Your task to perform on an android device: manage bookmarks in the chrome app Image 0: 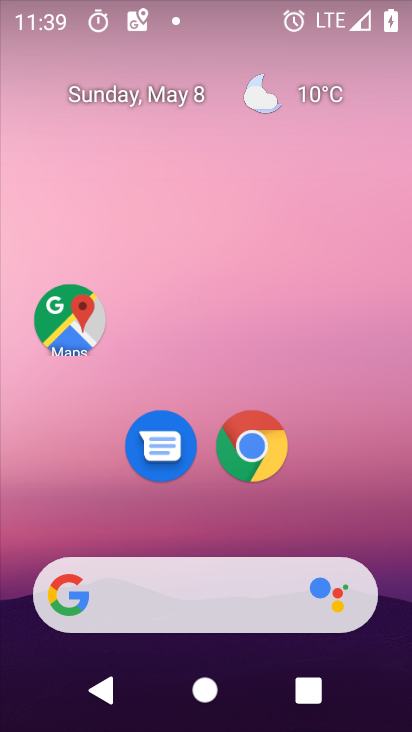
Step 0: click (254, 453)
Your task to perform on an android device: manage bookmarks in the chrome app Image 1: 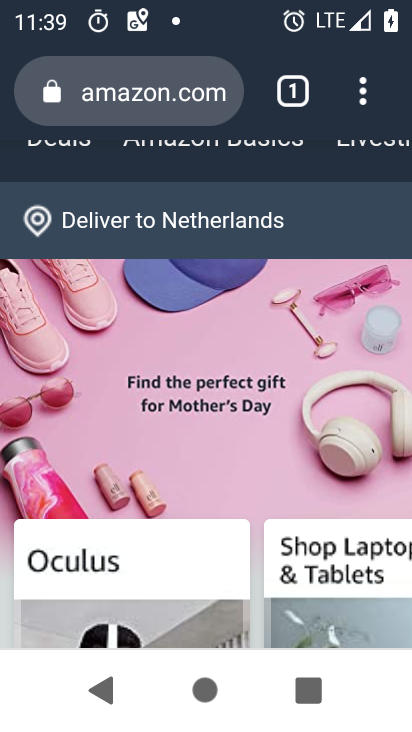
Step 1: drag from (365, 96) to (128, 337)
Your task to perform on an android device: manage bookmarks in the chrome app Image 2: 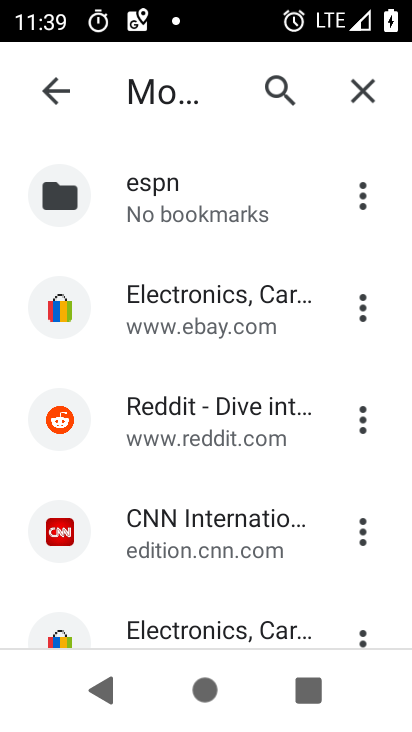
Step 2: click (364, 422)
Your task to perform on an android device: manage bookmarks in the chrome app Image 3: 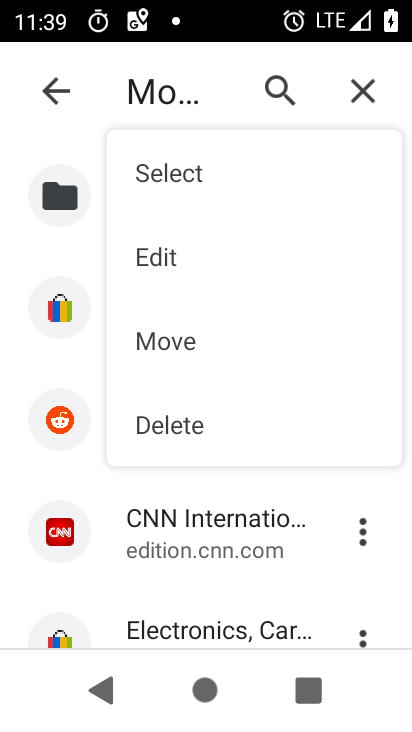
Step 3: click (175, 424)
Your task to perform on an android device: manage bookmarks in the chrome app Image 4: 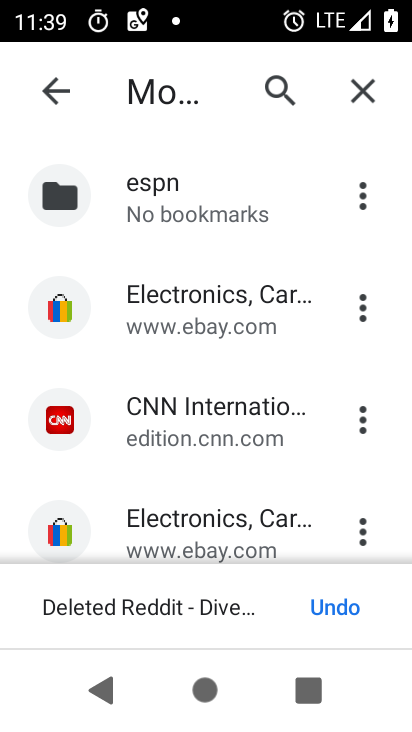
Step 4: task complete